Your task to perform on an android device: open app "Upside-Cash back on gas & food" (install if not already installed) and enter user name: "transatlantic@gmail.com" and password: "experiences" Image 0: 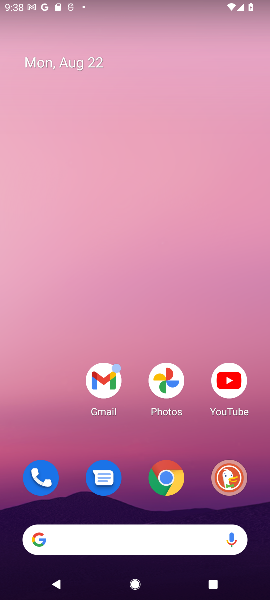
Step 0: drag from (134, 505) to (148, 47)
Your task to perform on an android device: open app "Upside-Cash back on gas & food" (install if not already installed) and enter user name: "transatlantic@gmail.com" and password: "experiences" Image 1: 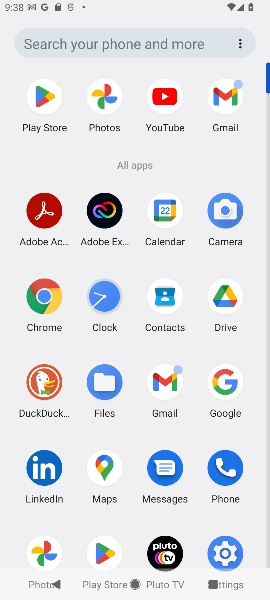
Step 1: click (46, 96)
Your task to perform on an android device: open app "Upside-Cash back on gas & food" (install if not already installed) and enter user name: "transatlantic@gmail.com" and password: "experiences" Image 2: 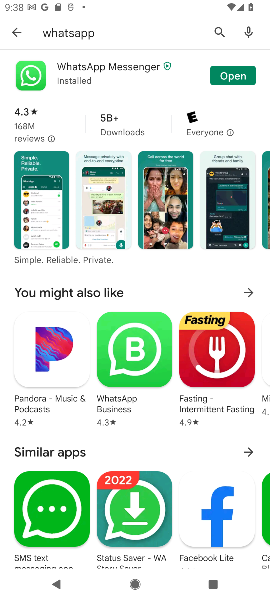
Step 2: click (225, 34)
Your task to perform on an android device: open app "Upside-Cash back on gas & food" (install if not already installed) and enter user name: "transatlantic@gmail.com" and password: "experiences" Image 3: 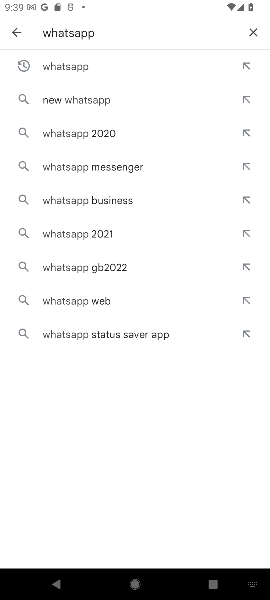
Step 3: click (255, 38)
Your task to perform on an android device: open app "Upside-Cash back on gas & food" (install if not already installed) and enter user name: "transatlantic@gmail.com" and password: "experiences" Image 4: 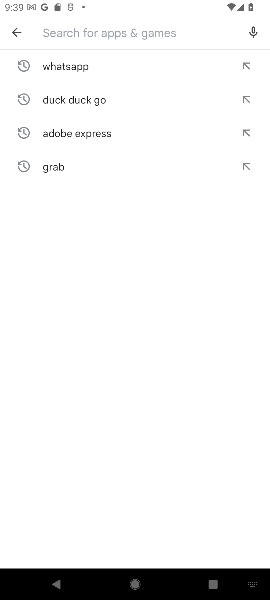
Step 4: type "upside"
Your task to perform on an android device: open app "Upside-Cash back on gas & food" (install if not already installed) and enter user name: "transatlantic@gmail.com" and password: "experiences" Image 5: 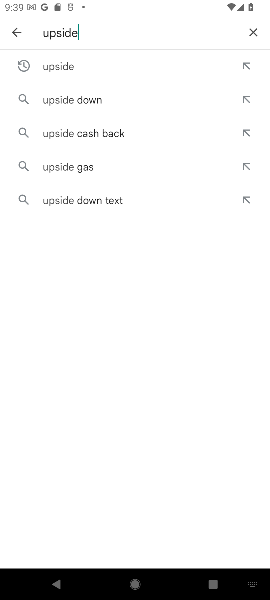
Step 5: click (86, 68)
Your task to perform on an android device: open app "Upside-Cash back on gas & food" (install if not already installed) and enter user name: "transatlantic@gmail.com" and password: "experiences" Image 6: 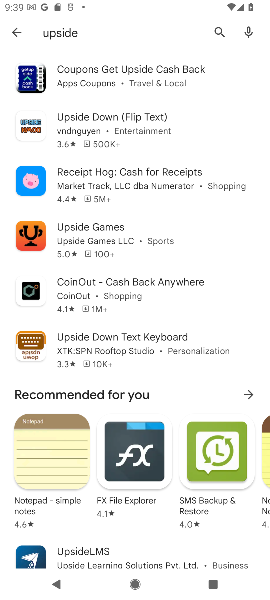
Step 6: task complete